Your task to perform on an android device: Go to Reddit.com Image 0: 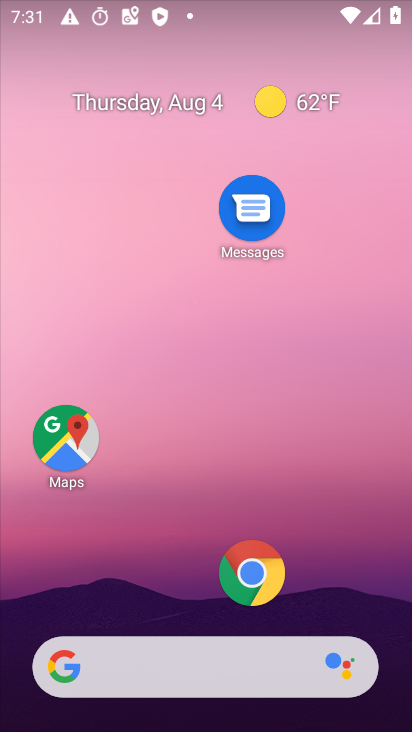
Step 0: click (49, 665)
Your task to perform on an android device: Go to Reddit.com Image 1: 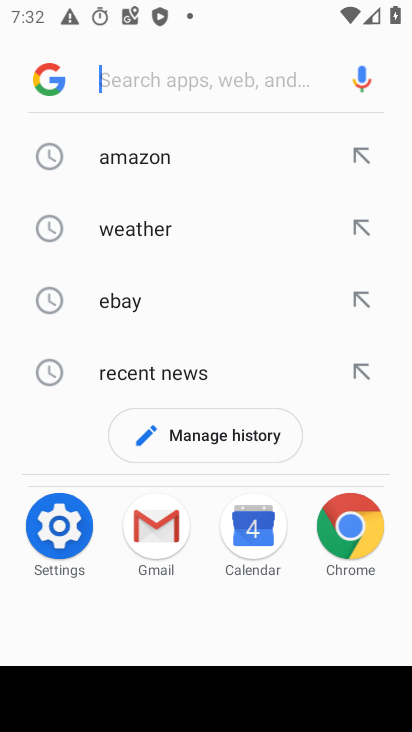
Step 1: type "Reddit.com"
Your task to perform on an android device: Go to Reddit.com Image 2: 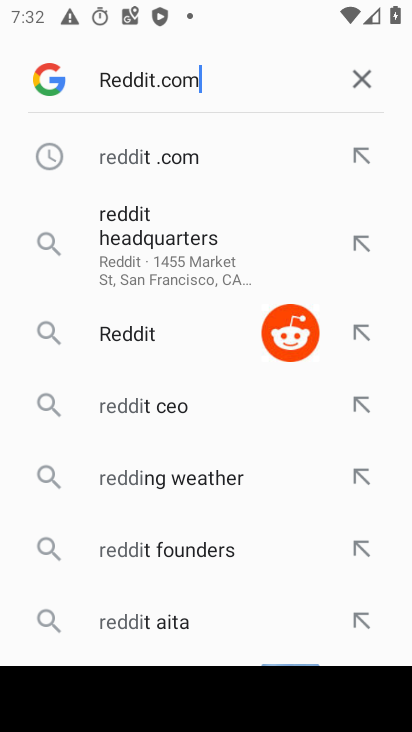
Step 2: press enter
Your task to perform on an android device: Go to Reddit.com Image 3: 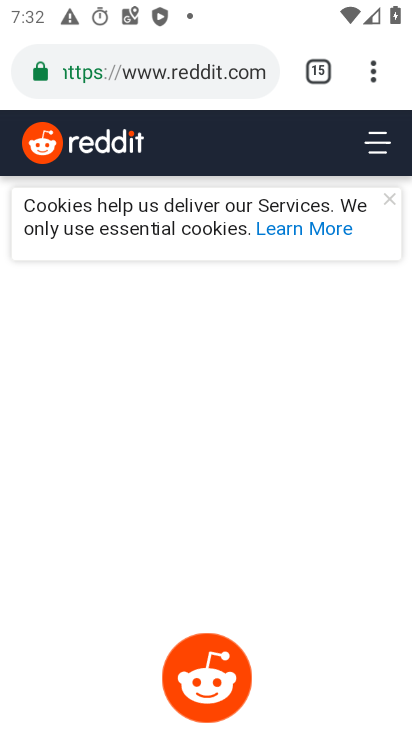
Step 3: task complete